Your task to perform on an android device: find snoozed emails in the gmail app Image 0: 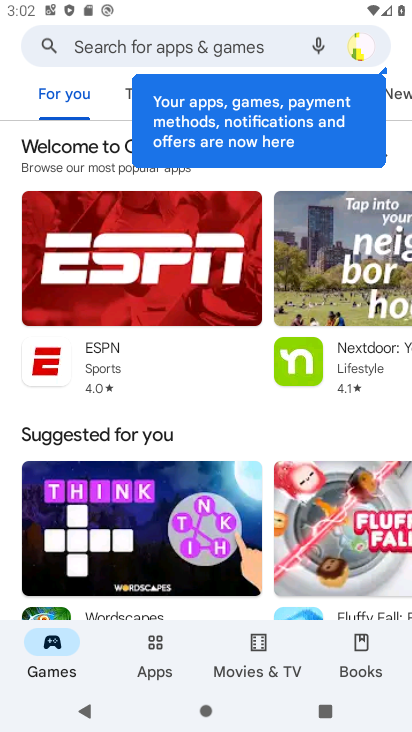
Step 0: press home button
Your task to perform on an android device: find snoozed emails in the gmail app Image 1: 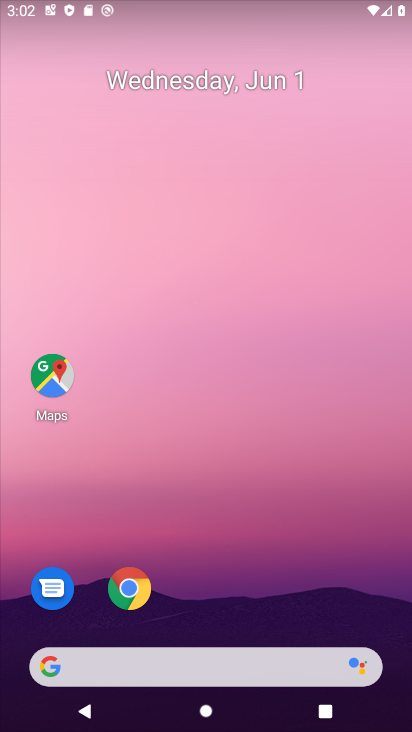
Step 1: drag from (311, 540) to (278, 180)
Your task to perform on an android device: find snoozed emails in the gmail app Image 2: 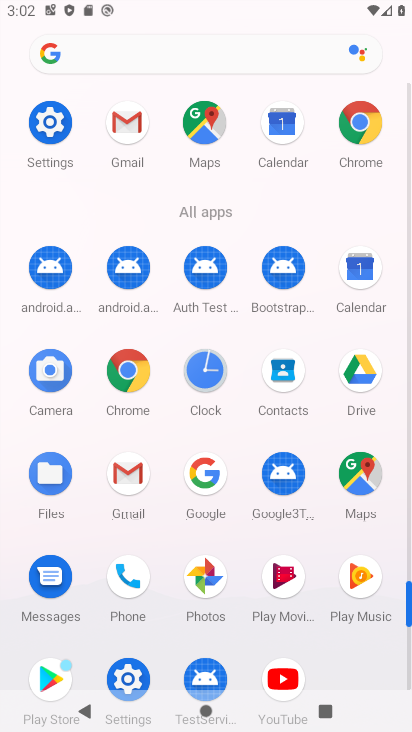
Step 2: click (126, 484)
Your task to perform on an android device: find snoozed emails in the gmail app Image 3: 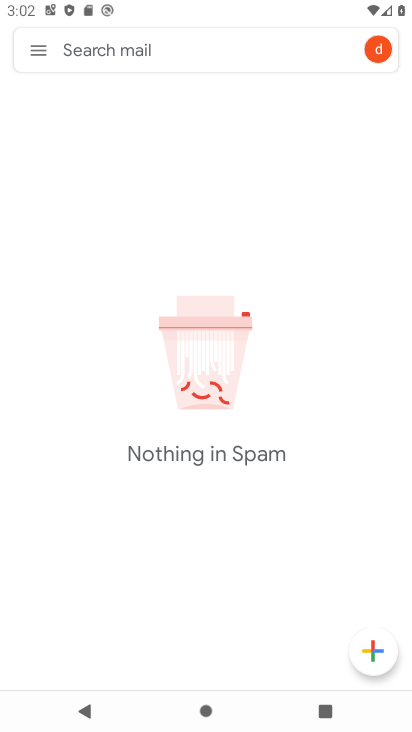
Step 3: click (43, 61)
Your task to perform on an android device: find snoozed emails in the gmail app Image 4: 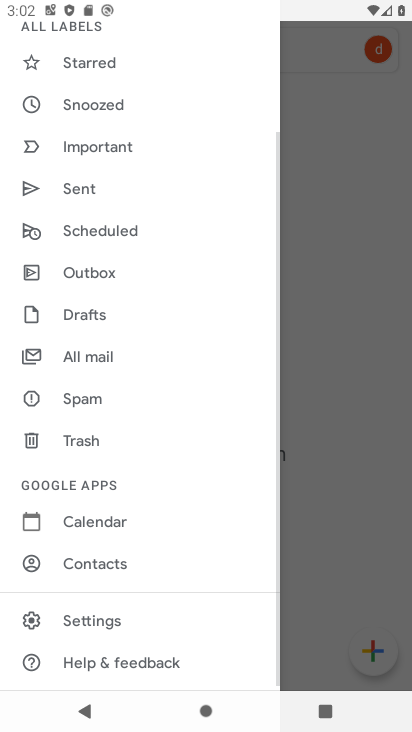
Step 4: click (109, 106)
Your task to perform on an android device: find snoozed emails in the gmail app Image 5: 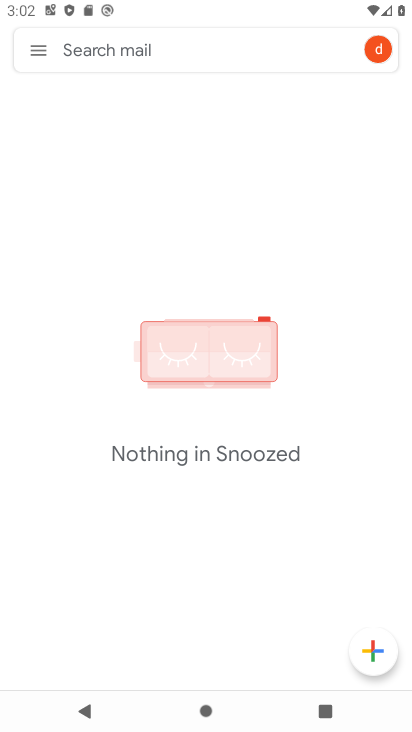
Step 5: task complete